Your task to perform on an android device: Is it going to rain today? Image 0: 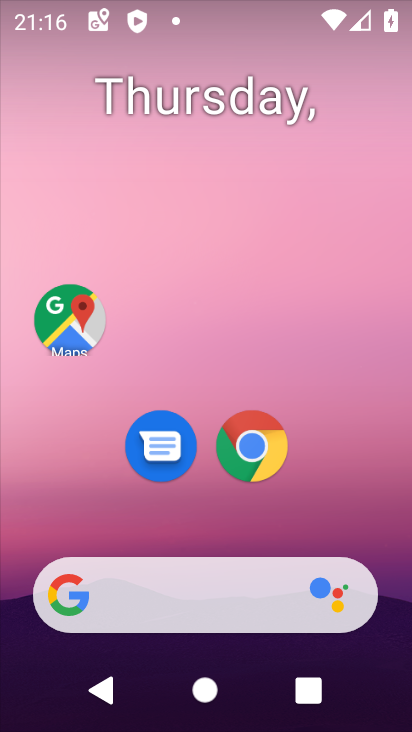
Step 0: click (232, 448)
Your task to perform on an android device: Is it going to rain today? Image 1: 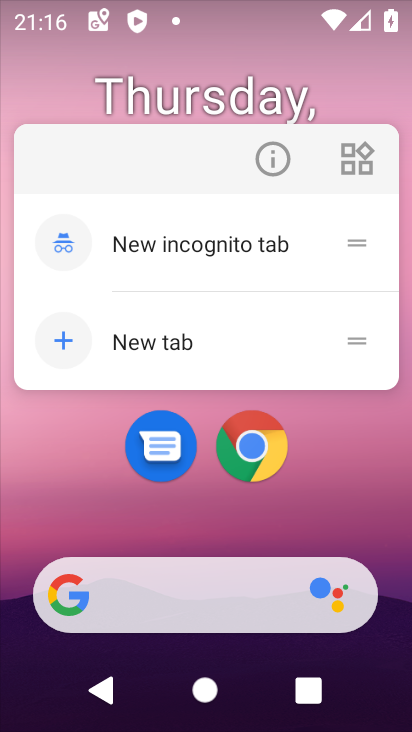
Step 1: click (249, 459)
Your task to perform on an android device: Is it going to rain today? Image 2: 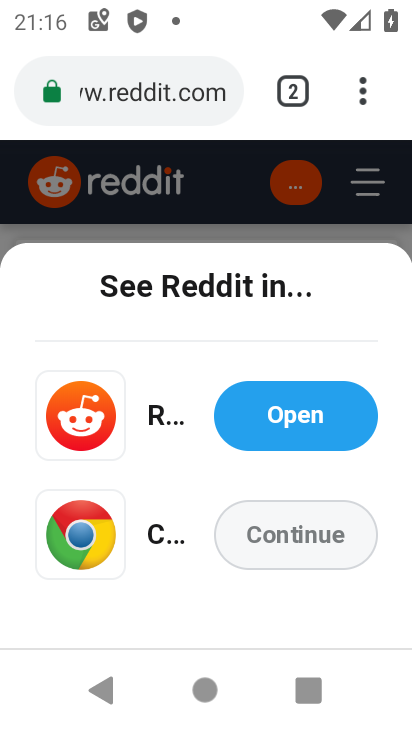
Step 2: click (179, 102)
Your task to perform on an android device: Is it going to rain today? Image 3: 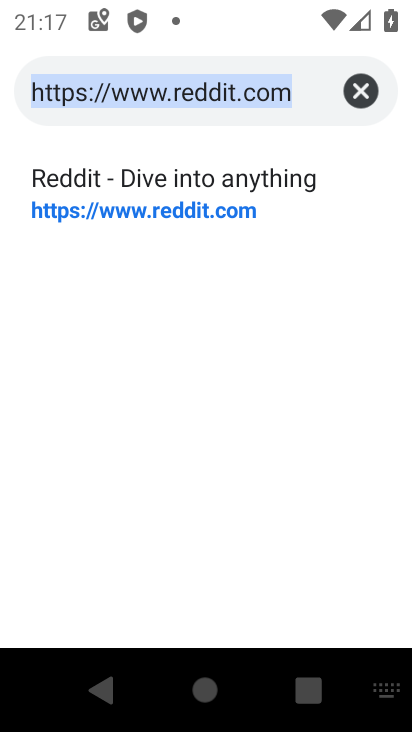
Step 3: click (360, 87)
Your task to perform on an android device: Is it going to rain today? Image 4: 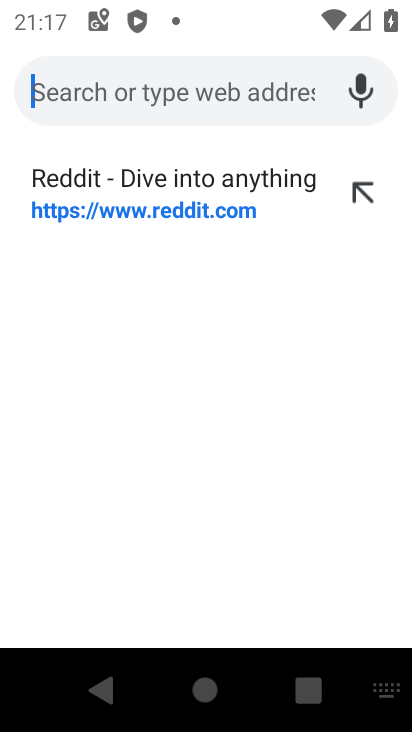
Step 4: type "Is it going to rain today?"
Your task to perform on an android device: Is it going to rain today? Image 5: 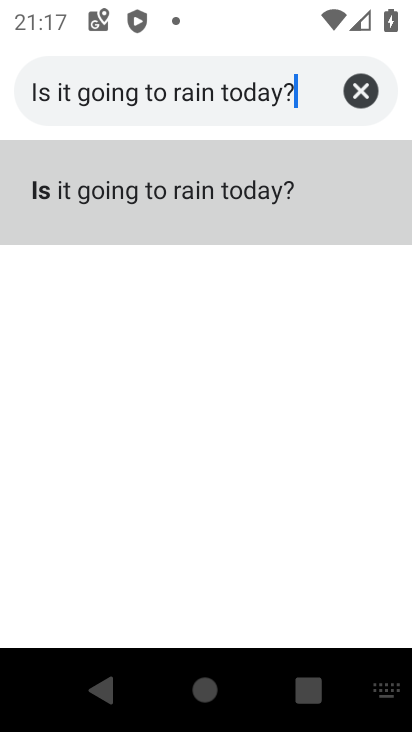
Step 5: type ""
Your task to perform on an android device: Is it going to rain today? Image 6: 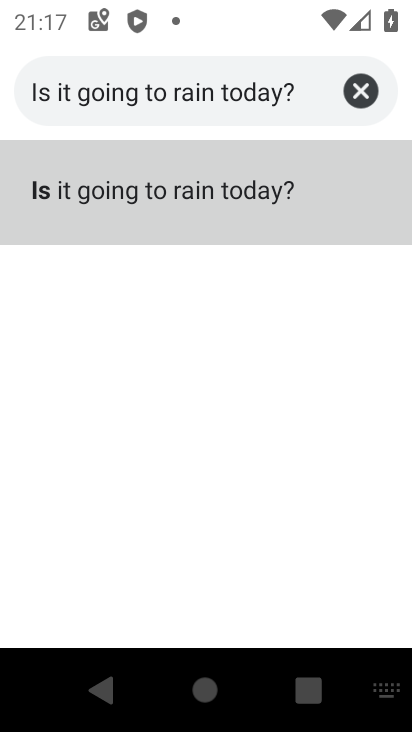
Step 6: click (244, 183)
Your task to perform on an android device: Is it going to rain today? Image 7: 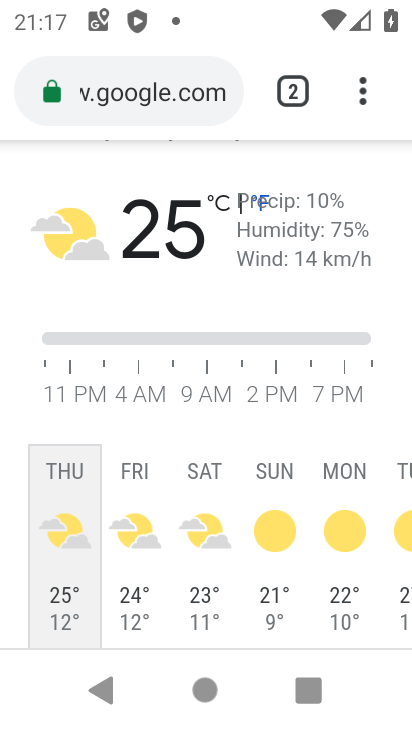
Step 7: task complete